Your task to perform on an android device: turn on improve location accuracy Image 0: 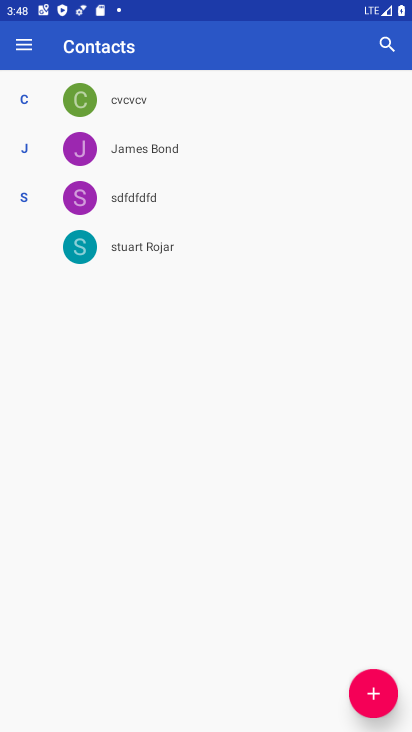
Step 0: press home button
Your task to perform on an android device: turn on improve location accuracy Image 1: 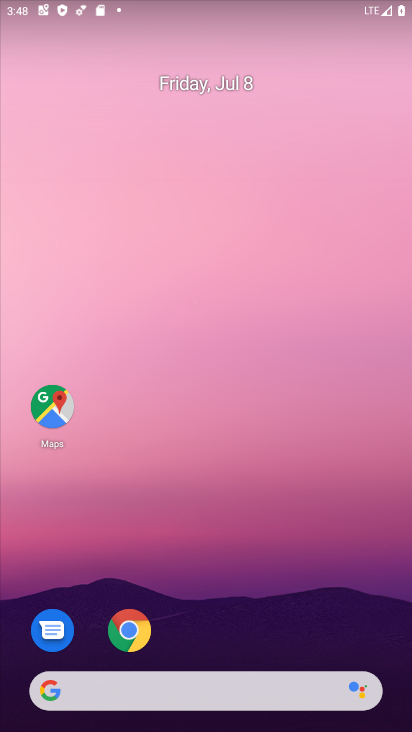
Step 1: drag from (219, 652) to (213, 228)
Your task to perform on an android device: turn on improve location accuracy Image 2: 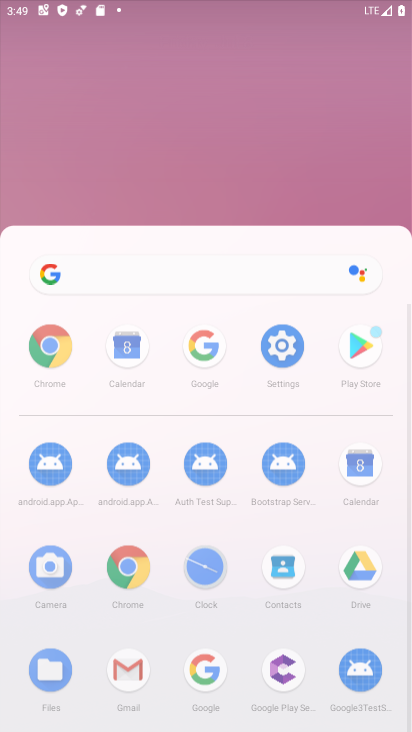
Step 2: drag from (249, 140) to (262, 67)
Your task to perform on an android device: turn on improve location accuracy Image 3: 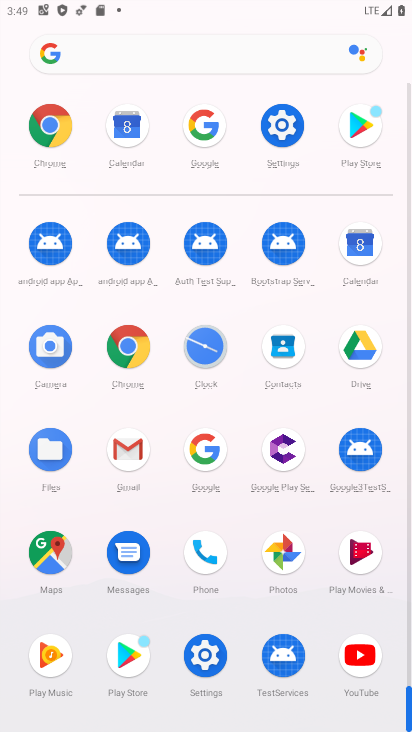
Step 3: click (280, 125)
Your task to perform on an android device: turn on improve location accuracy Image 4: 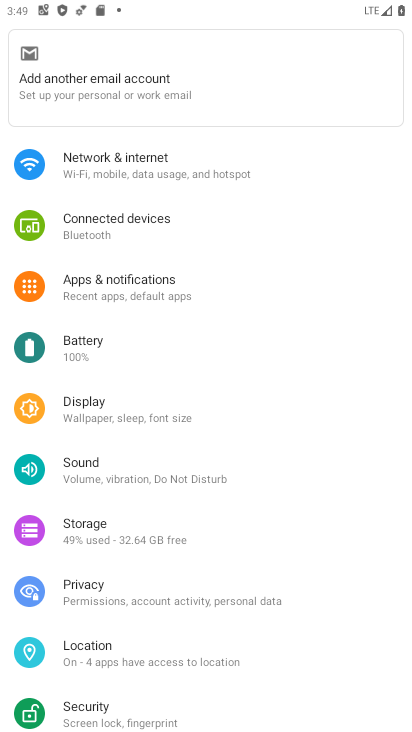
Step 4: click (98, 652)
Your task to perform on an android device: turn on improve location accuracy Image 5: 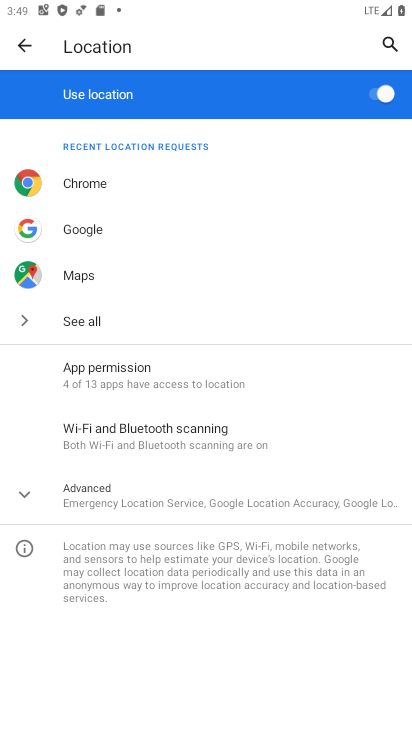
Step 5: click (139, 502)
Your task to perform on an android device: turn on improve location accuracy Image 6: 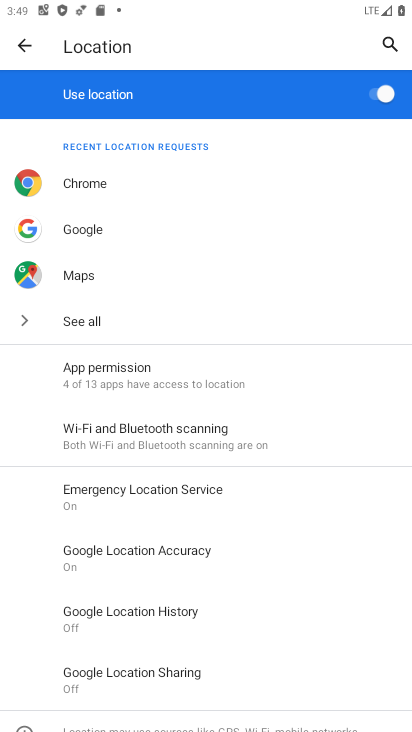
Step 6: click (145, 548)
Your task to perform on an android device: turn on improve location accuracy Image 7: 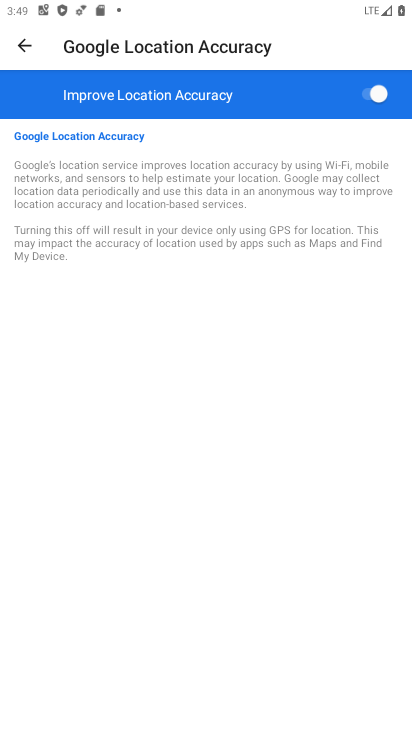
Step 7: task complete